Your task to perform on an android device: install app "AliExpress" Image 0: 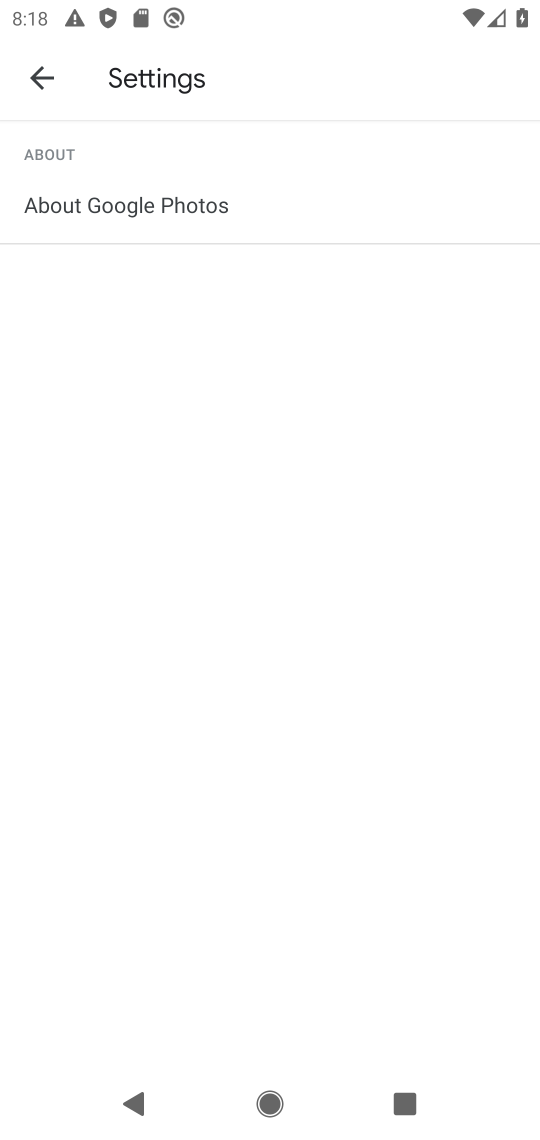
Step 0: click (22, 76)
Your task to perform on an android device: install app "AliExpress" Image 1: 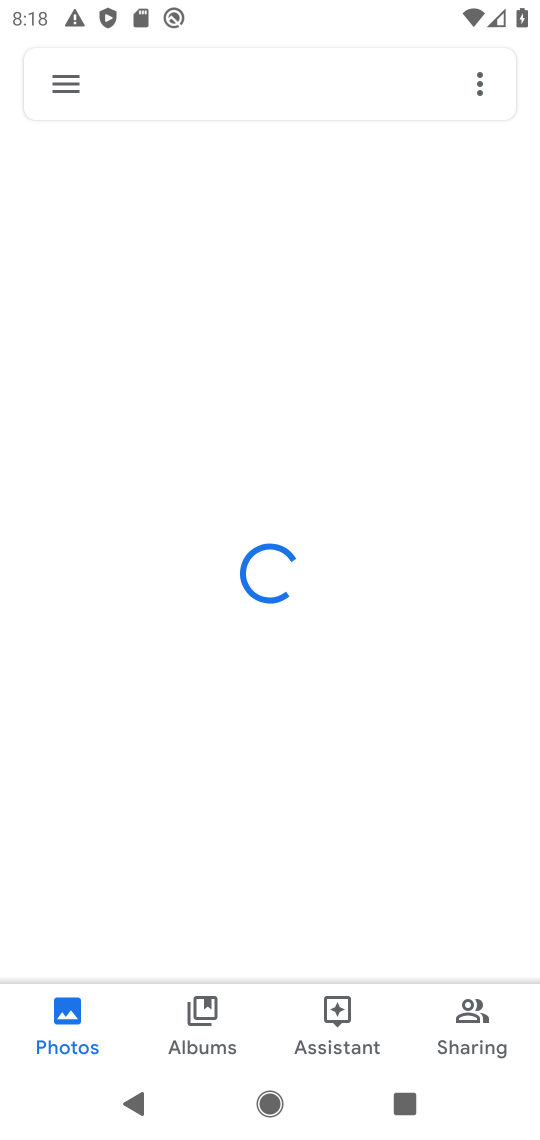
Step 1: press home button
Your task to perform on an android device: install app "AliExpress" Image 2: 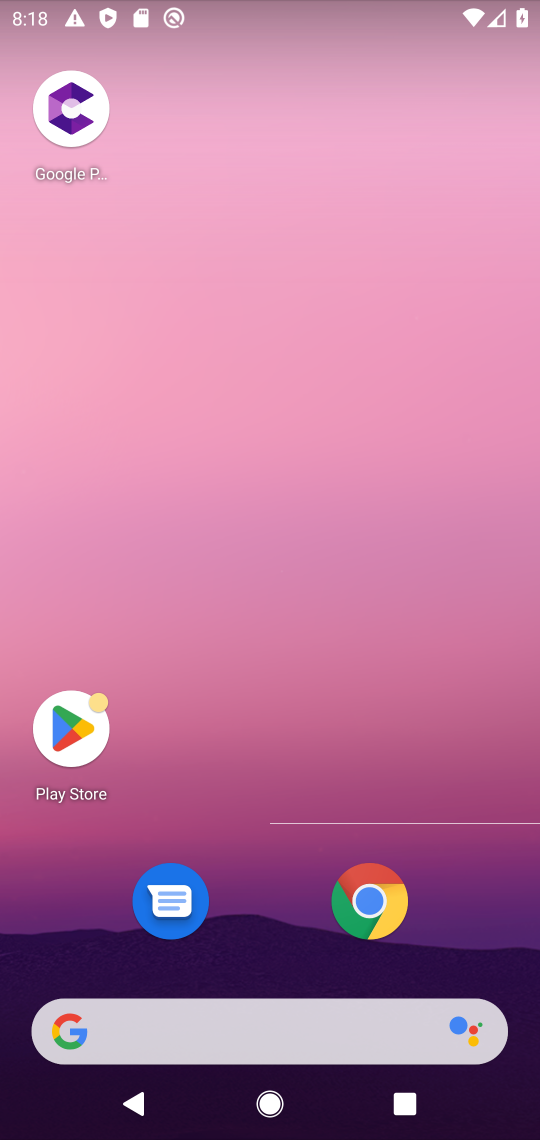
Step 2: click (72, 725)
Your task to perform on an android device: install app "AliExpress" Image 3: 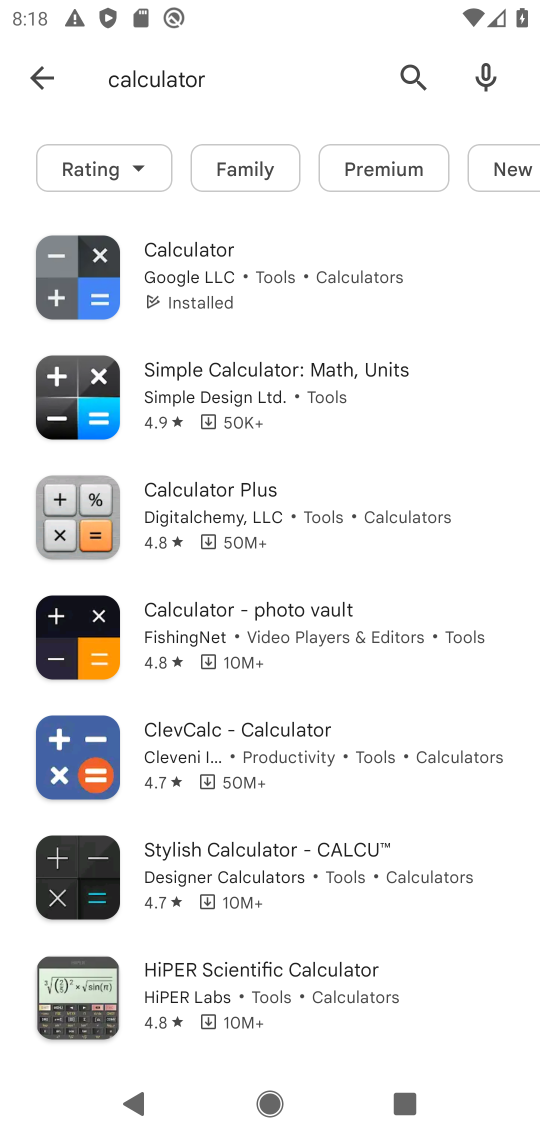
Step 3: click (402, 66)
Your task to perform on an android device: install app "AliExpress" Image 4: 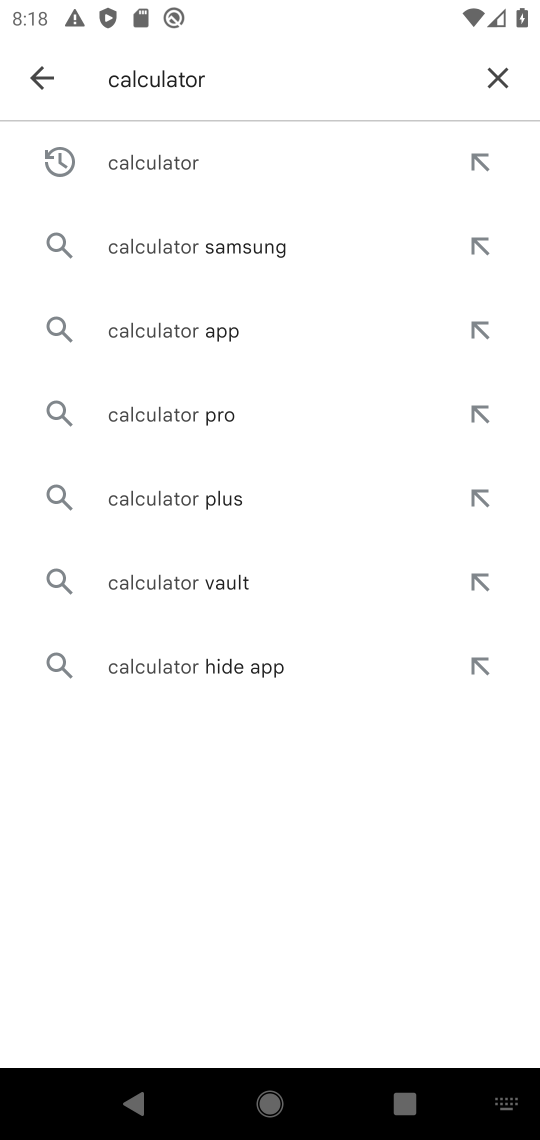
Step 4: click (510, 83)
Your task to perform on an android device: install app "AliExpress" Image 5: 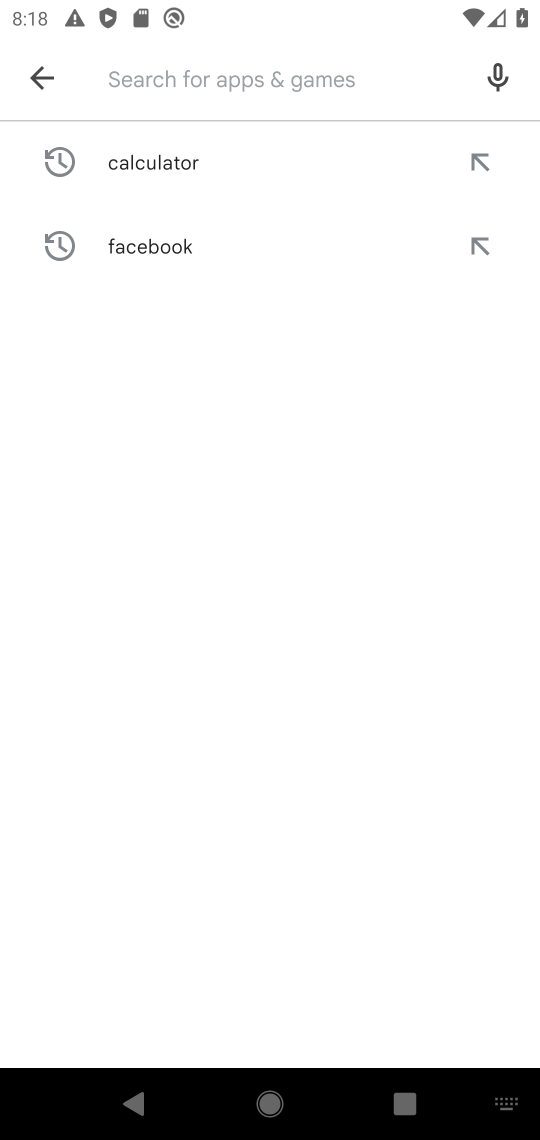
Step 5: type "AliExpress"
Your task to perform on an android device: install app "AliExpress" Image 6: 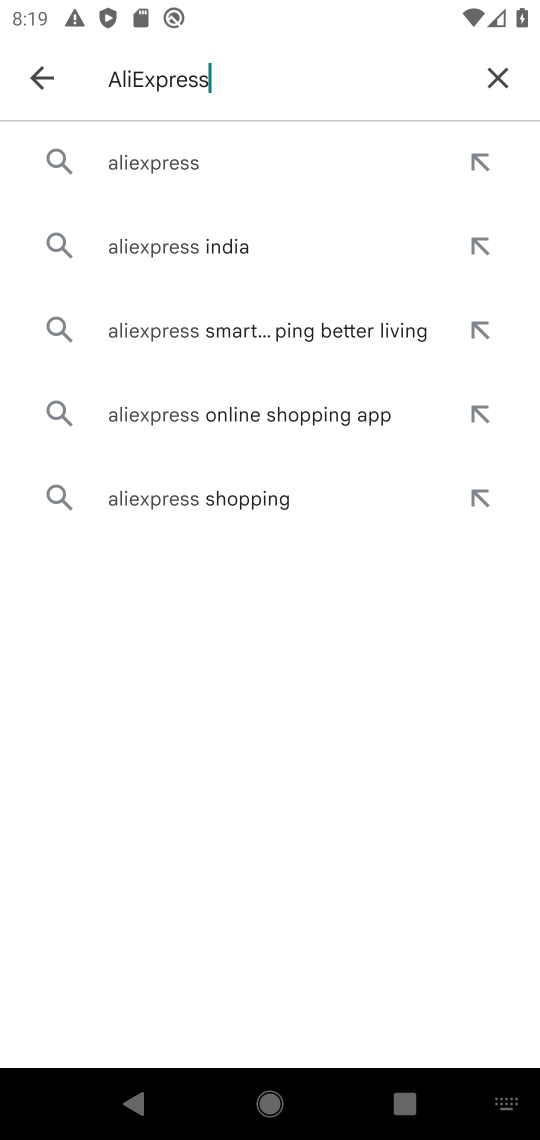
Step 6: click (200, 162)
Your task to perform on an android device: install app "AliExpress" Image 7: 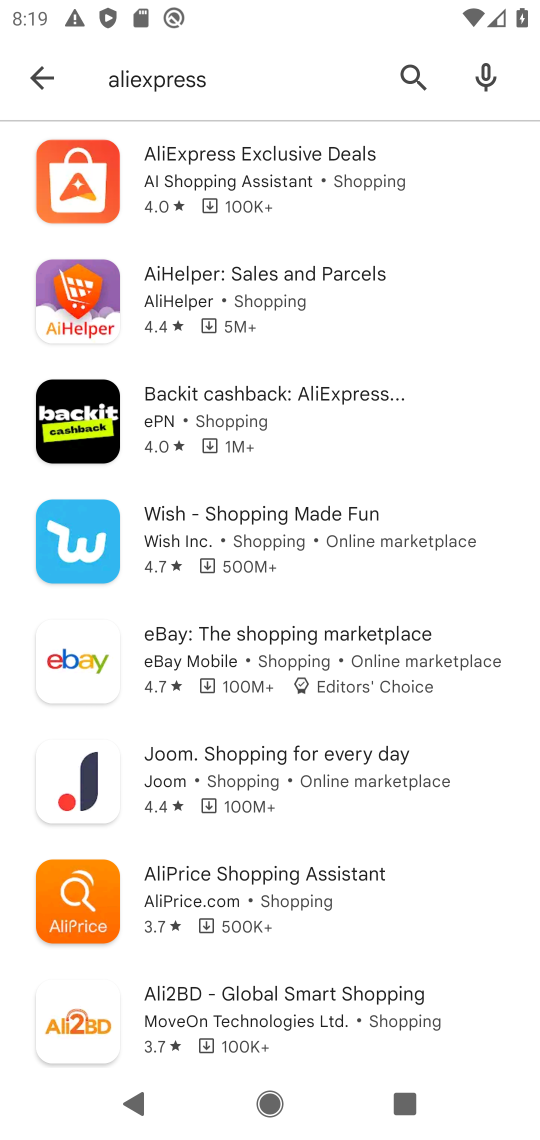
Step 7: task complete